Your task to perform on an android device: toggle airplane mode Image 0: 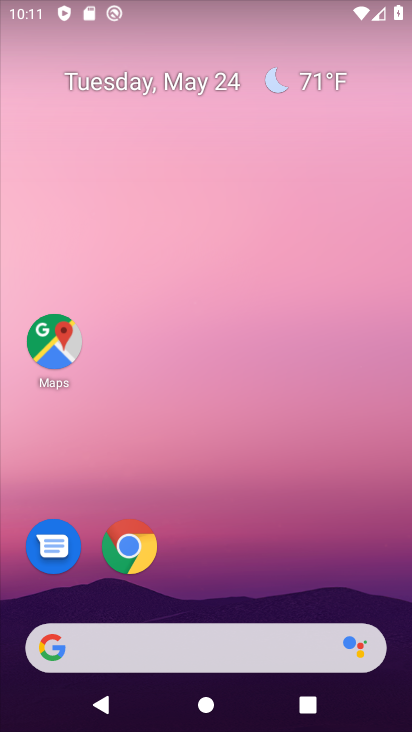
Step 0: drag from (317, 485) to (359, 116)
Your task to perform on an android device: toggle airplane mode Image 1: 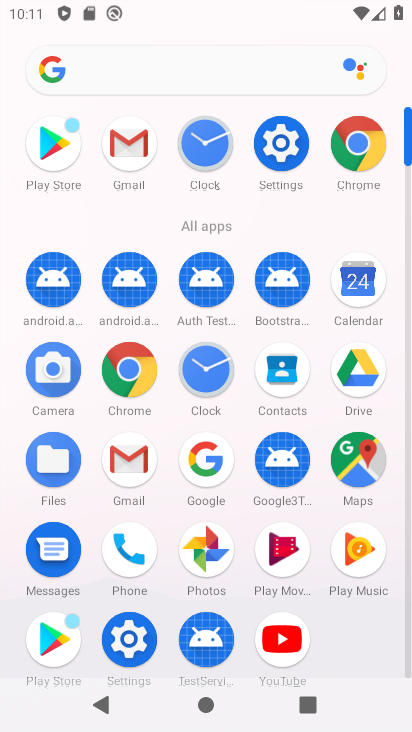
Step 1: click (289, 138)
Your task to perform on an android device: toggle airplane mode Image 2: 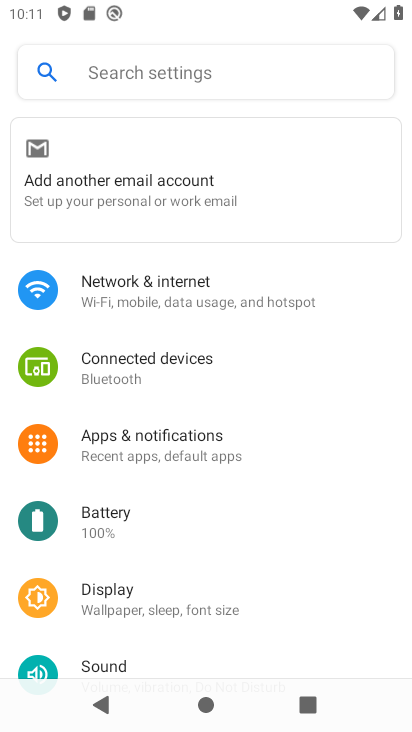
Step 2: click (156, 299)
Your task to perform on an android device: toggle airplane mode Image 3: 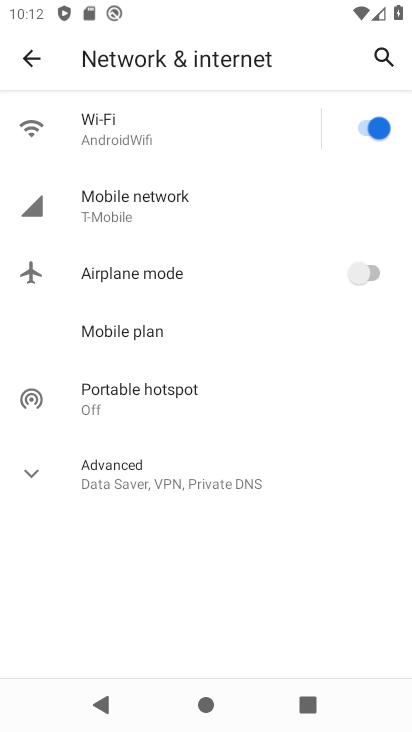
Step 3: click (157, 282)
Your task to perform on an android device: toggle airplane mode Image 4: 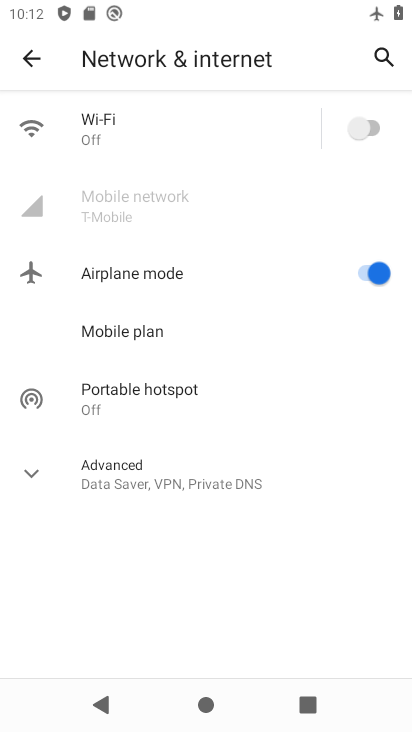
Step 4: task complete